Your task to perform on an android device: turn on sleep mode Image 0: 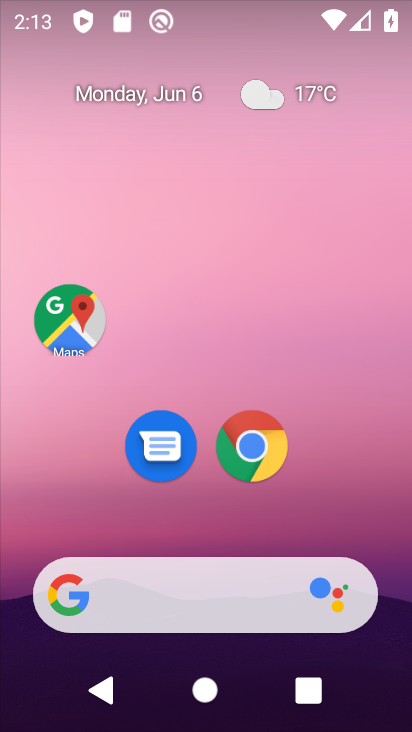
Step 0: drag from (308, 96) to (313, 40)
Your task to perform on an android device: turn on sleep mode Image 1: 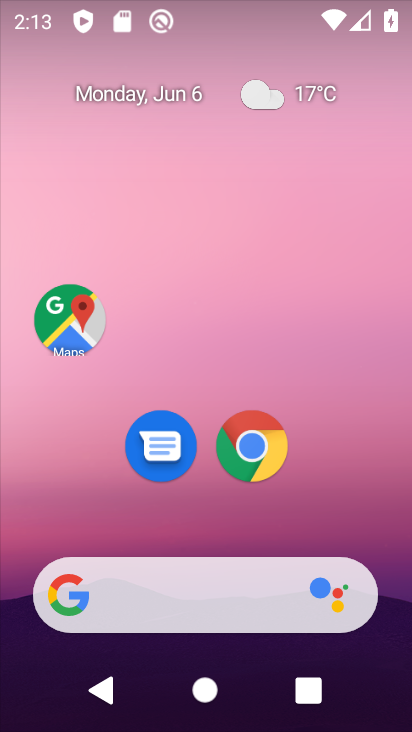
Step 1: drag from (199, 513) to (263, 43)
Your task to perform on an android device: turn on sleep mode Image 2: 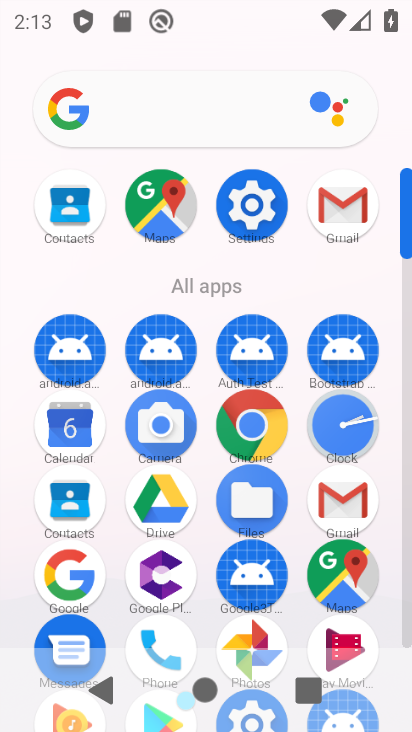
Step 2: click (240, 201)
Your task to perform on an android device: turn on sleep mode Image 3: 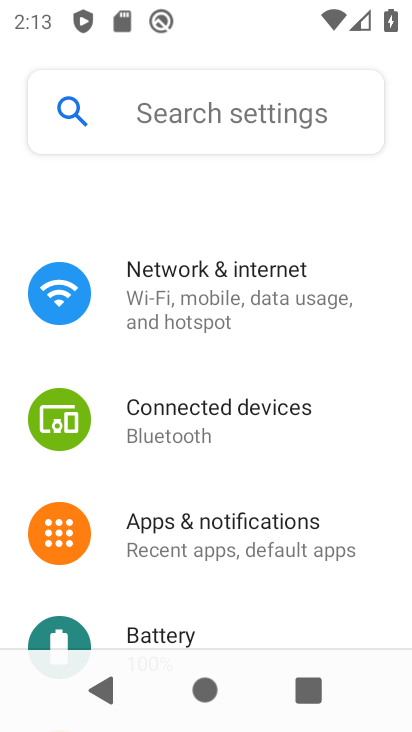
Step 3: click (183, 115)
Your task to perform on an android device: turn on sleep mode Image 4: 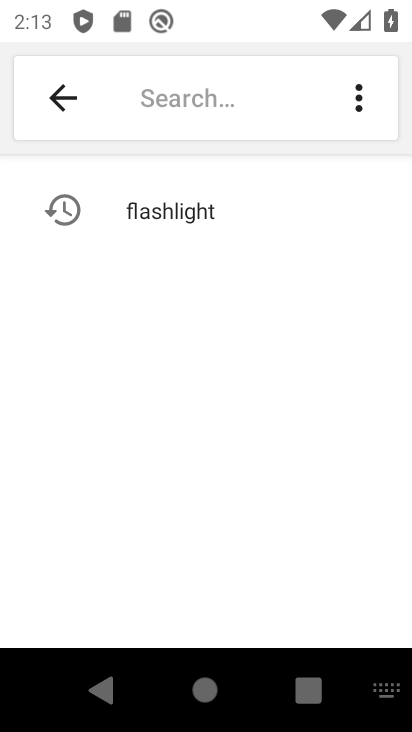
Step 4: type "sleep mode"
Your task to perform on an android device: turn on sleep mode Image 5: 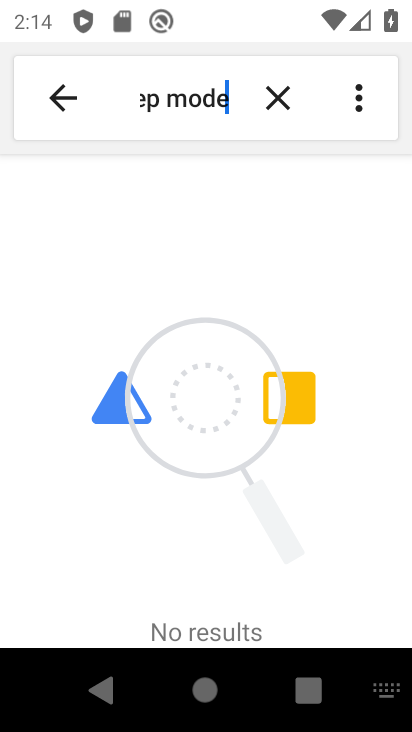
Step 5: task complete